Your task to perform on an android device: When is my next meeting? Image 0: 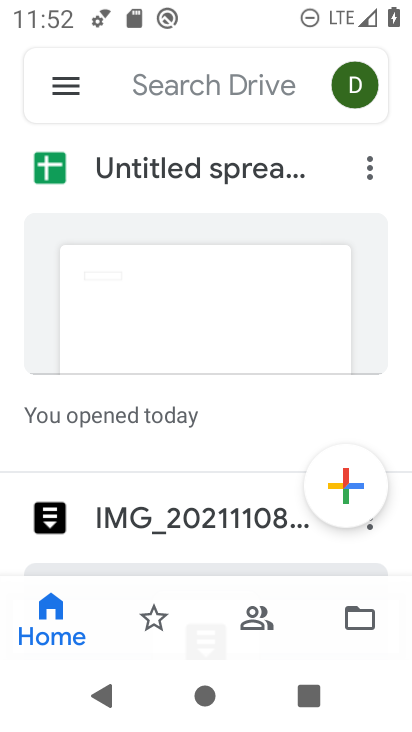
Step 0: press home button
Your task to perform on an android device: When is my next meeting? Image 1: 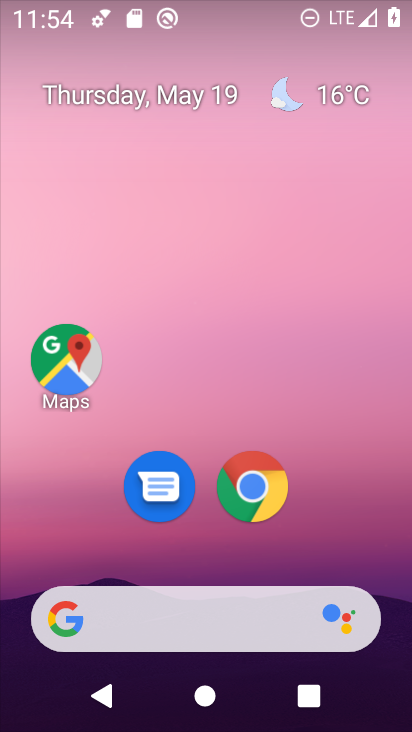
Step 1: drag from (323, 496) to (8, 584)
Your task to perform on an android device: When is my next meeting? Image 2: 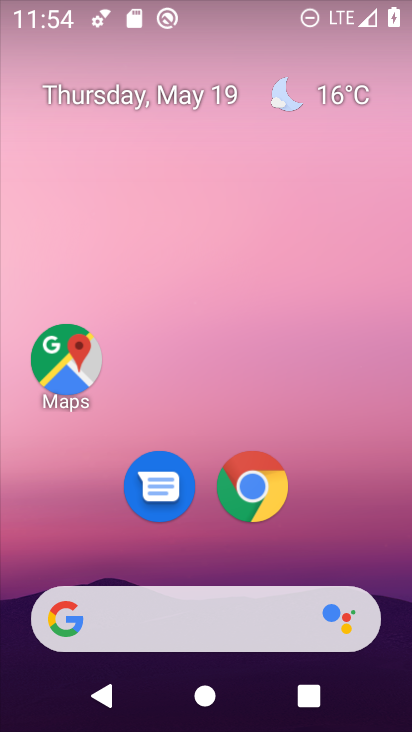
Step 2: click (45, 567)
Your task to perform on an android device: When is my next meeting? Image 3: 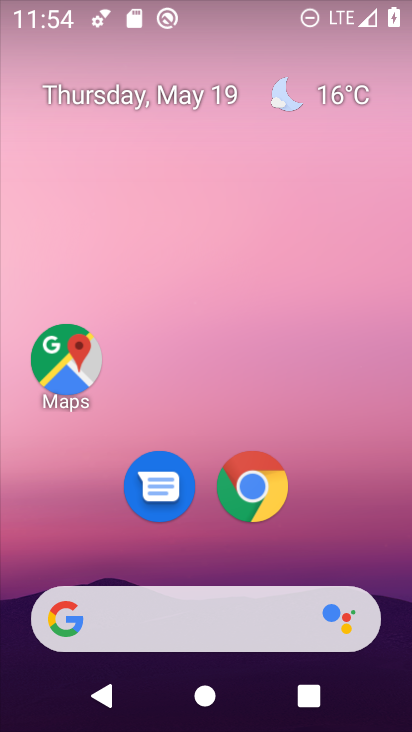
Step 3: drag from (45, 567) to (123, 1)
Your task to perform on an android device: When is my next meeting? Image 4: 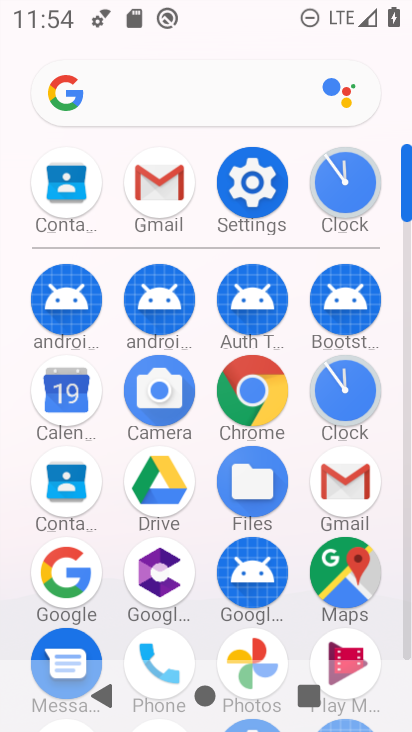
Step 4: click (63, 427)
Your task to perform on an android device: When is my next meeting? Image 5: 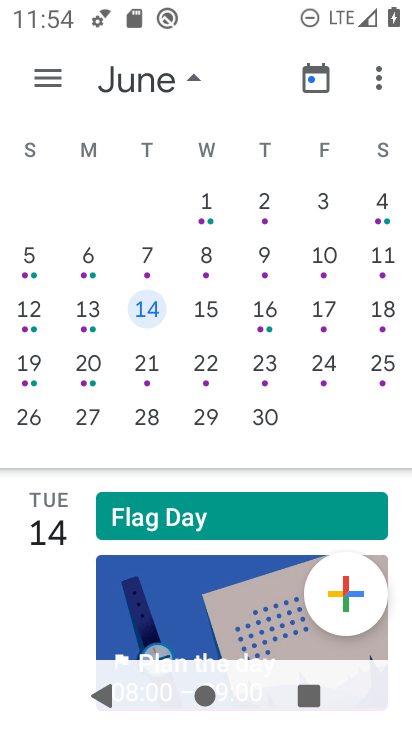
Step 5: task complete